Your task to perform on an android device: Open Wikipedia Image 0: 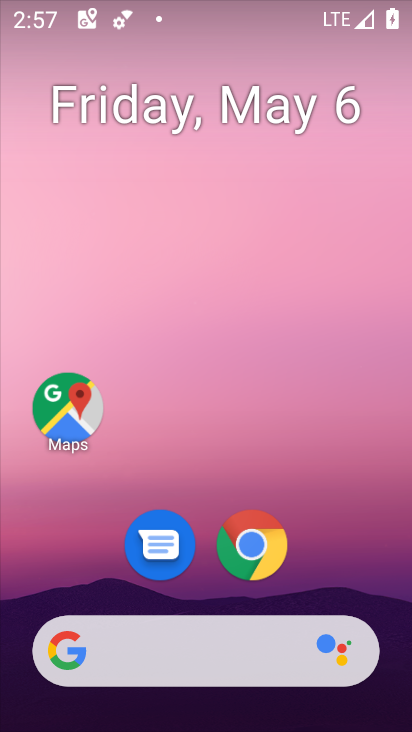
Step 0: drag from (373, 555) to (335, 290)
Your task to perform on an android device: Open Wikipedia Image 1: 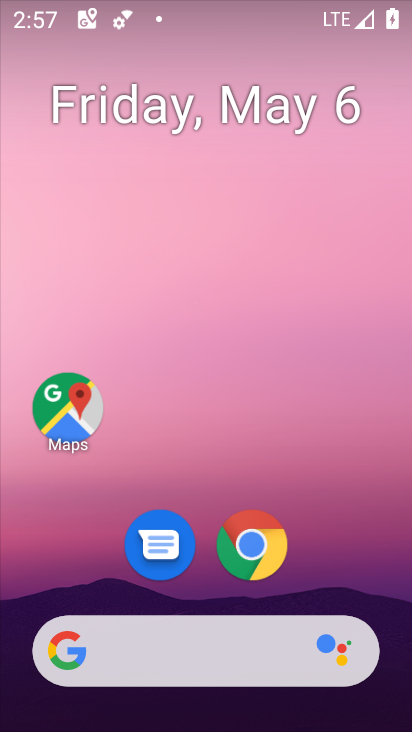
Step 1: click (263, 536)
Your task to perform on an android device: Open Wikipedia Image 2: 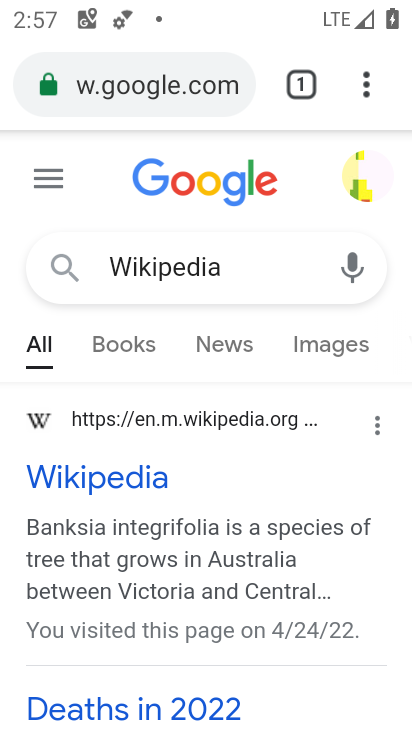
Step 2: click (238, 87)
Your task to perform on an android device: Open Wikipedia Image 3: 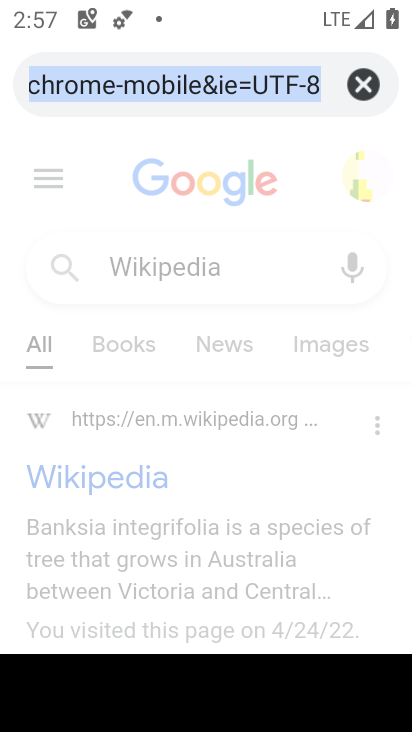
Step 3: click (382, 77)
Your task to perform on an android device: Open Wikipedia Image 4: 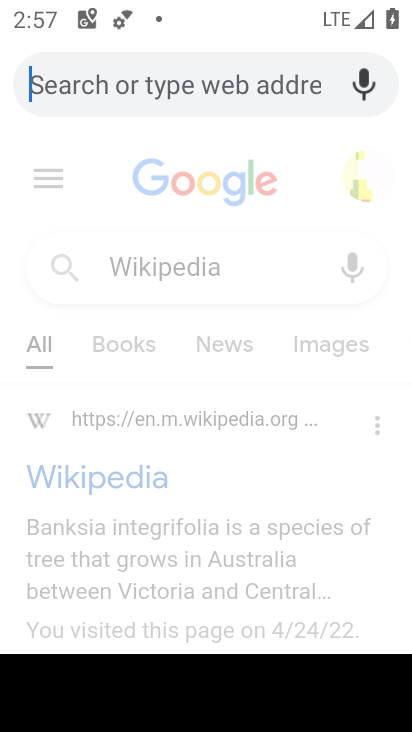
Step 4: click (138, 90)
Your task to perform on an android device: Open Wikipedia Image 5: 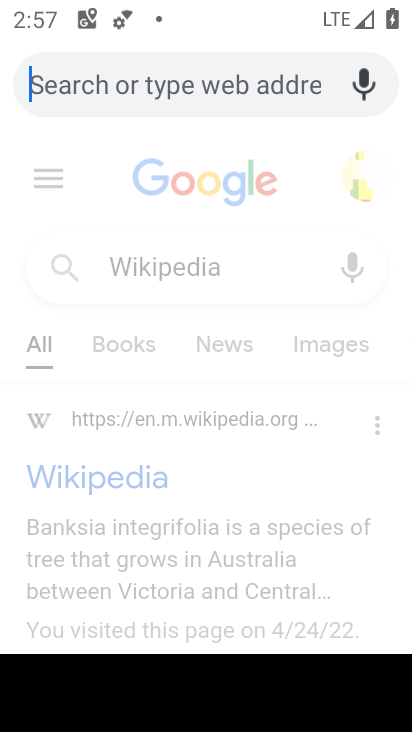
Step 5: type " Wikipedia"
Your task to perform on an android device: Open Wikipedia Image 6: 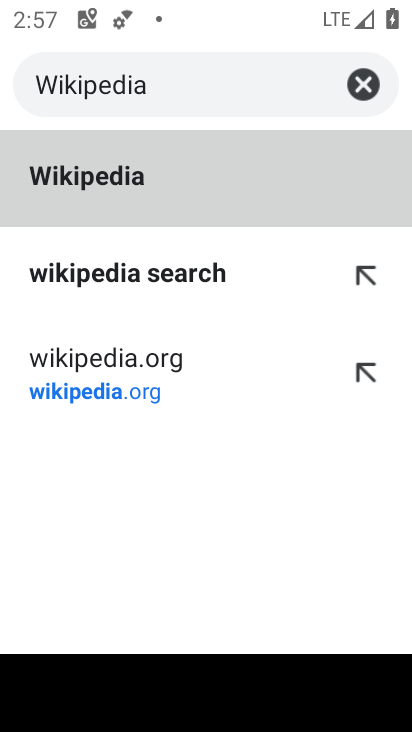
Step 6: click (130, 169)
Your task to perform on an android device: Open Wikipedia Image 7: 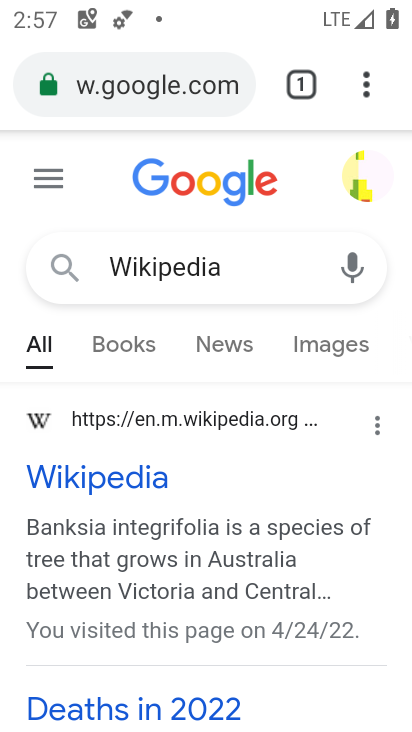
Step 7: task complete